Your task to perform on an android device: Show me the alarms in the clock app Image 0: 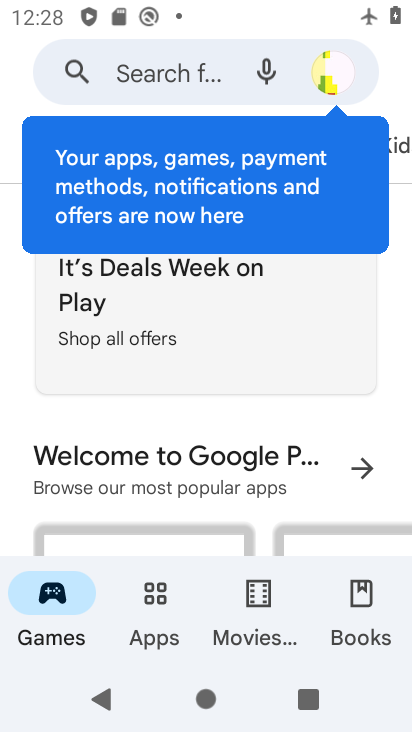
Step 0: press home button
Your task to perform on an android device: Show me the alarms in the clock app Image 1: 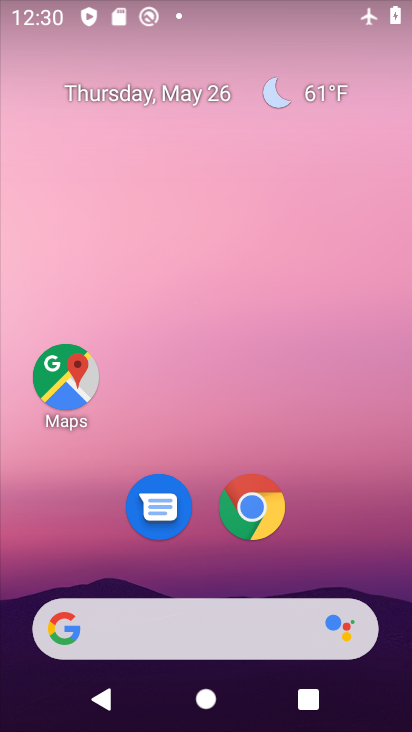
Step 1: drag from (397, 545) to (308, 35)
Your task to perform on an android device: Show me the alarms in the clock app Image 2: 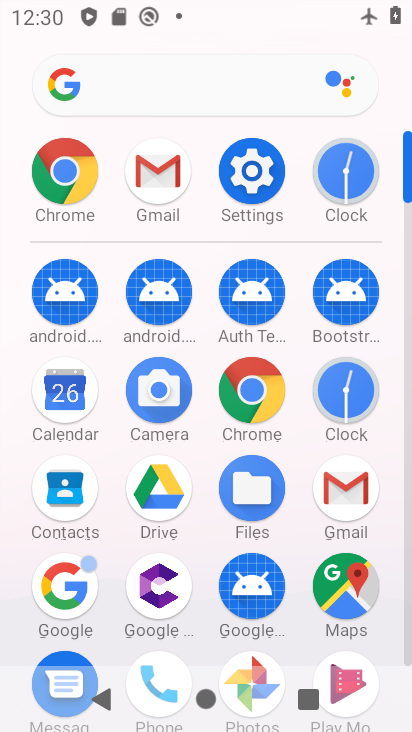
Step 2: click (353, 223)
Your task to perform on an android device: Show me the alarms in the clock app Image 3: 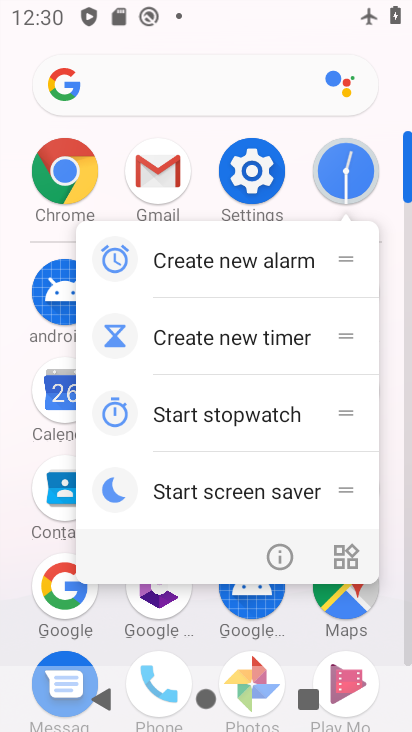
Step 3: click (369, 194)
Your task to perform on an android device: Show me the alarms in the clock app Image 4: 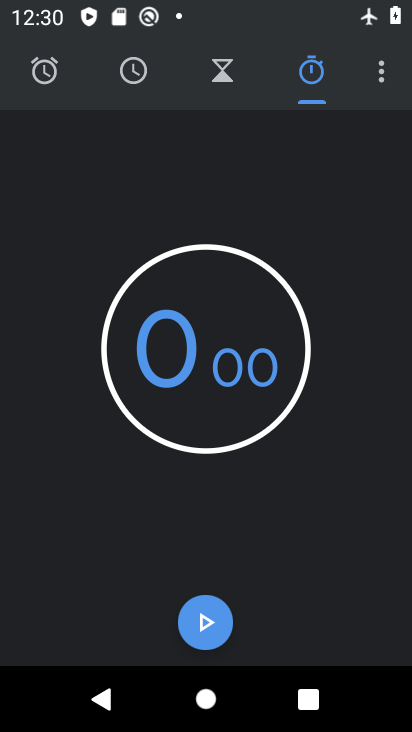
Step 4: click (58, 95)
Your task to perform on an android device: Show me the alarms in the clock app Image 5: 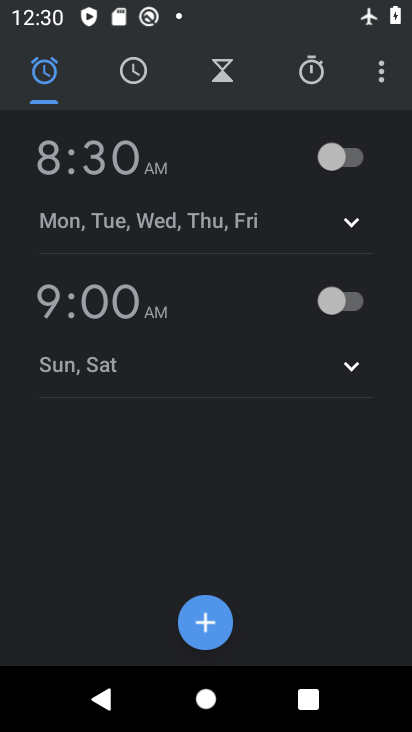
Step 5: task complete